Your task to perform on an android device: Do I have any events tomorrow? Image 0: 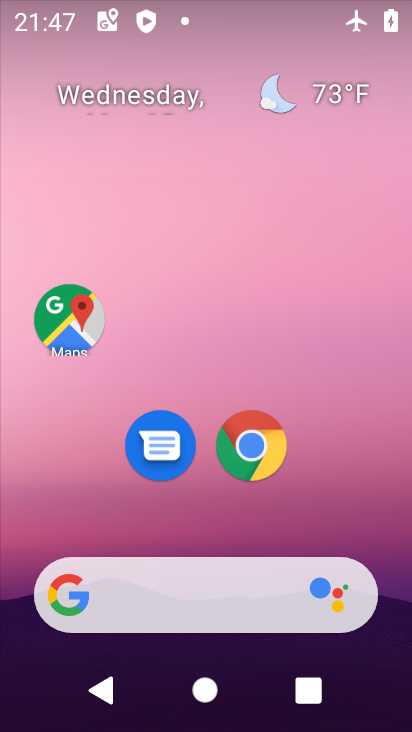
Step 0: drag from (329, 447) to (325, 223)
Your task to perform on an android device: Do I have any events tomorrow? Image 1: 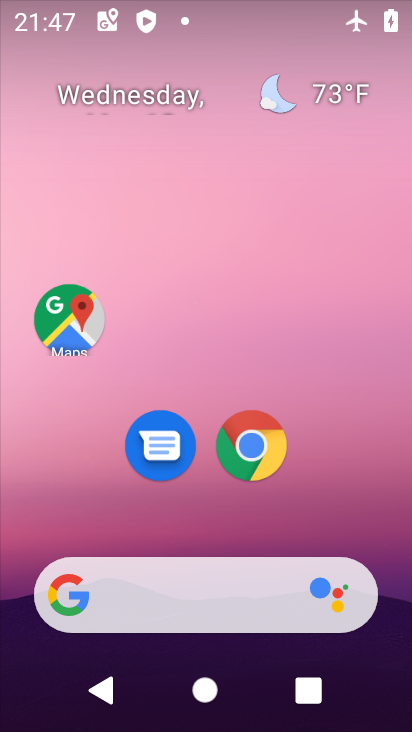
Step 1: drag from (294, 400) to (285, 178)
Your task to perform on an android device: Do I have any events tomorrow? Image 2: 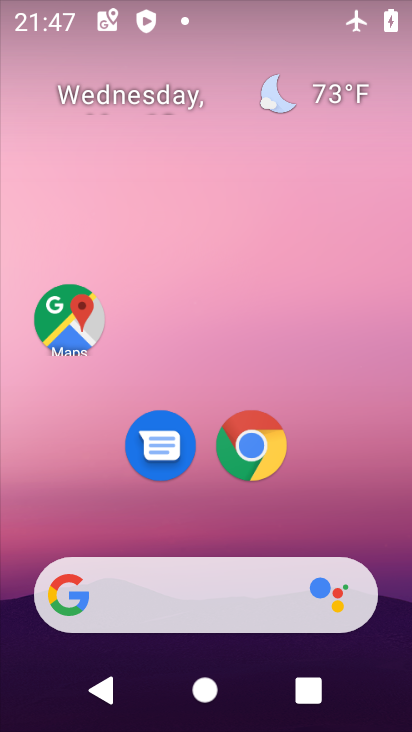
Step 2: drag from (295, 502) to (288, 173)
Your task to perform on an android device: Do I have any events tomorrow? Image 3: 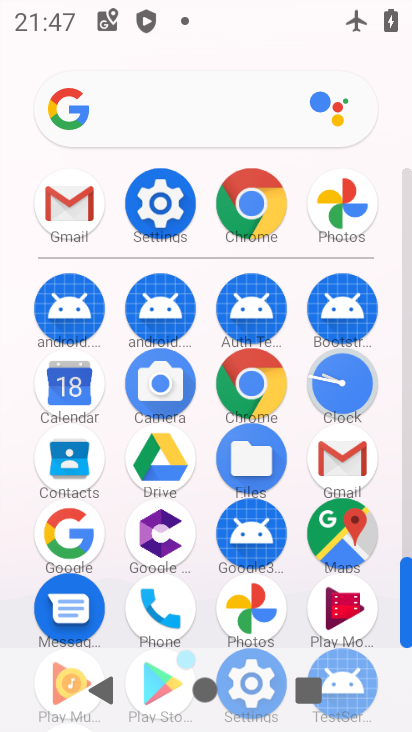
Step 3: click (80, 401)
Your task to perform on an android device: Do I have any events tomorrow? Image 4: 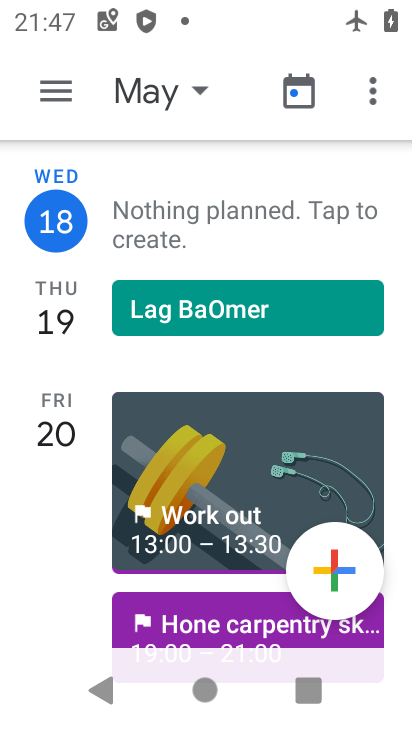
Step 4: task complete